Your task to perform on an android device: turn on notifications settings in the gmail app Image 0: 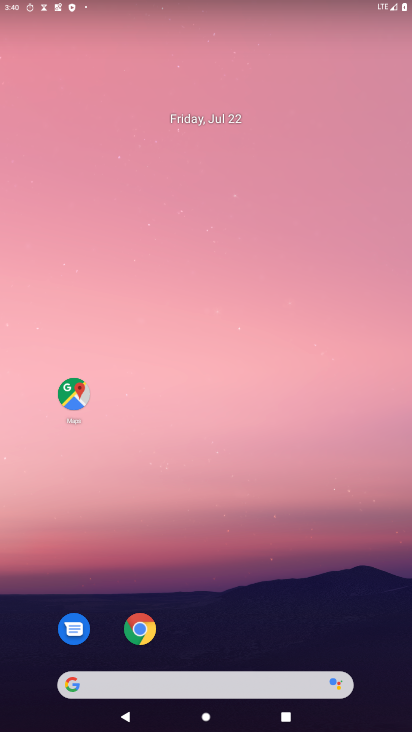
Step 0: drag from (272, 689) to (287, 1)
Your task to perform on an android device: turn on notifications settings in the gmail app Image 1: 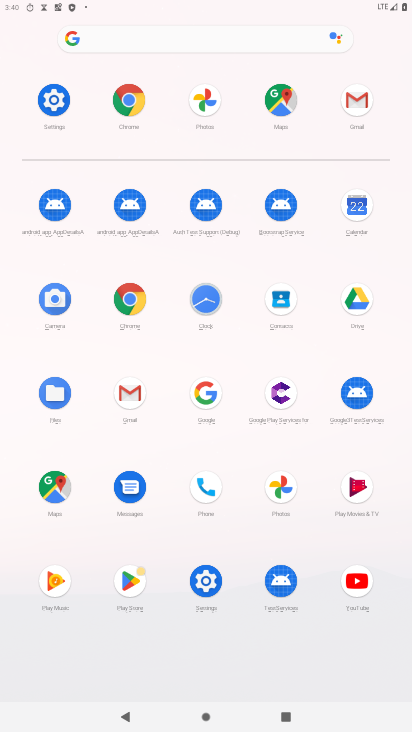
Step 1: click (131, 394)
Your task to perform on an android device: turn on notifications settings in the gmail app Image 2: 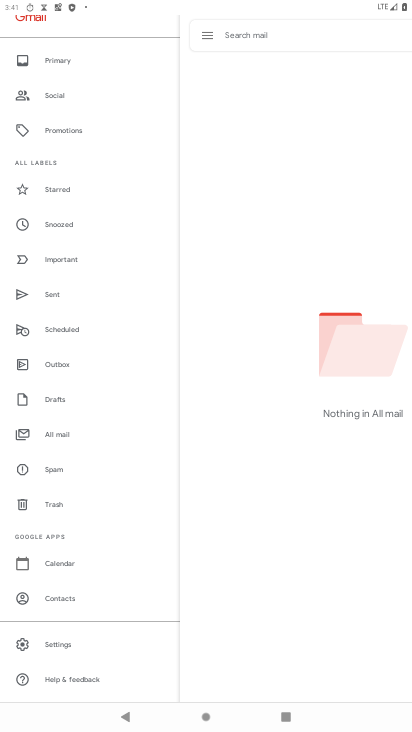
Step 2: click (82, 647)
Your task to perform on an android device: turn on notifications settings in the gmail app Image 3: 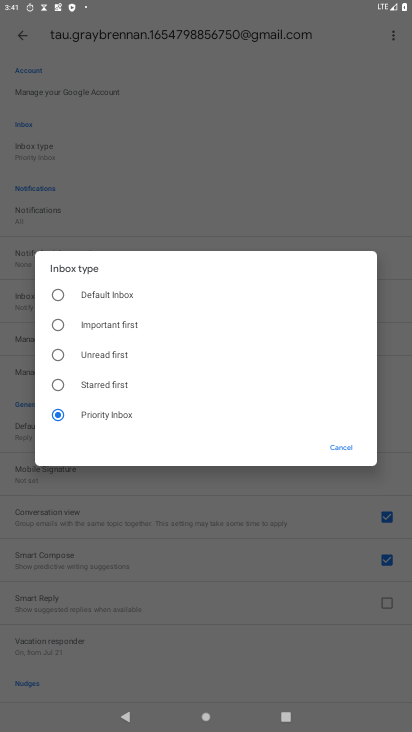
Step 3: click (325, 442)
Your task to perform on an android device: turn on notifications settings in the gmail app Image 4: 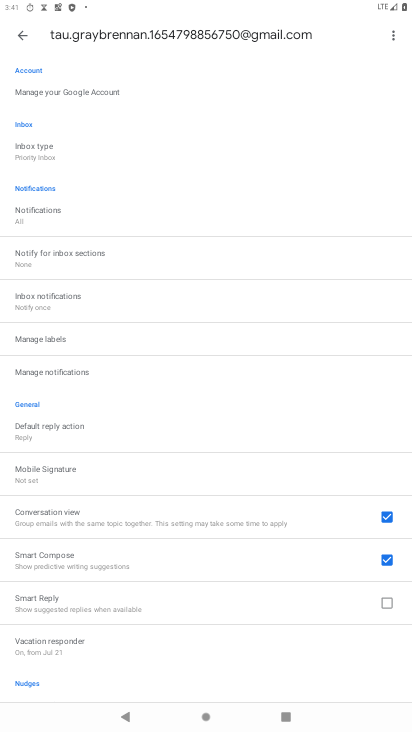
Step 4: click (73, 370)
Your task to perform on an android device: turn on notifications settings in the gmail app Image 5: 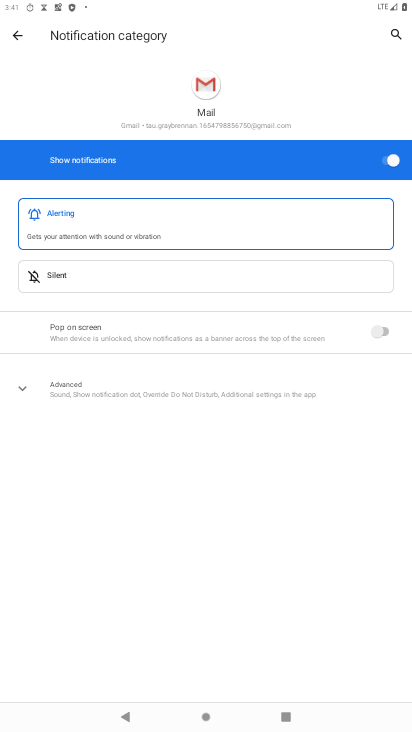
Step 5: task complete